Your task to perform on an android device: turn off location Image 0: 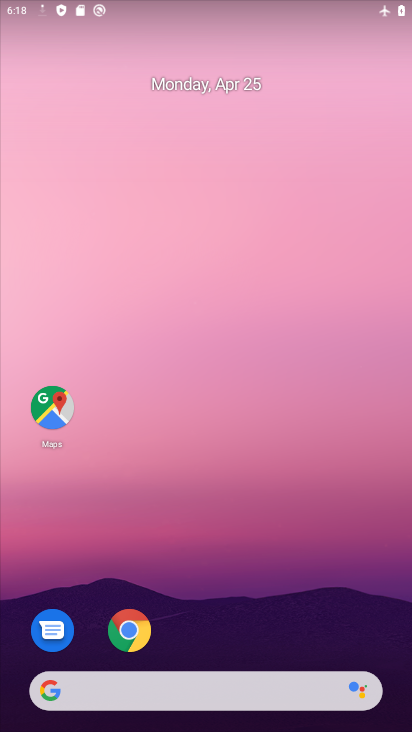
Step 0: drag from (220, 586) to (187, 20)
Your task to perform on an android device: turn off location Image 1: 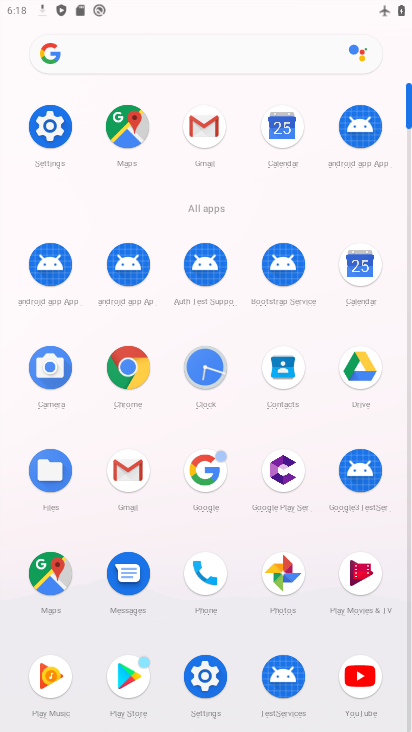
Step 1: click (44, 132)
Your task to perform on an android device: turn off location Image 2: 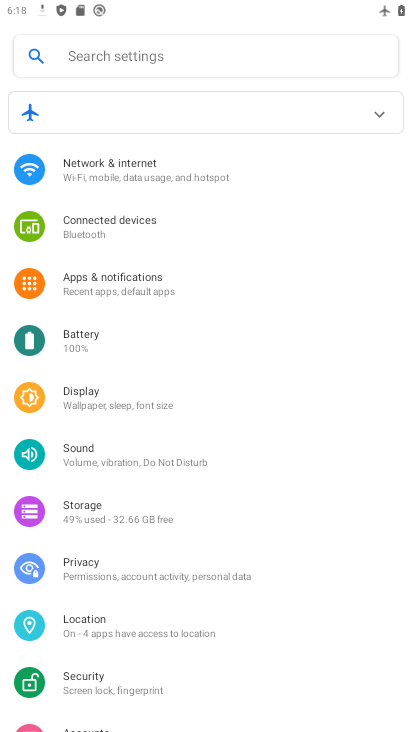
Step 2: click (103, 611)
Your task to perform on an android device: turn off location Image 3: 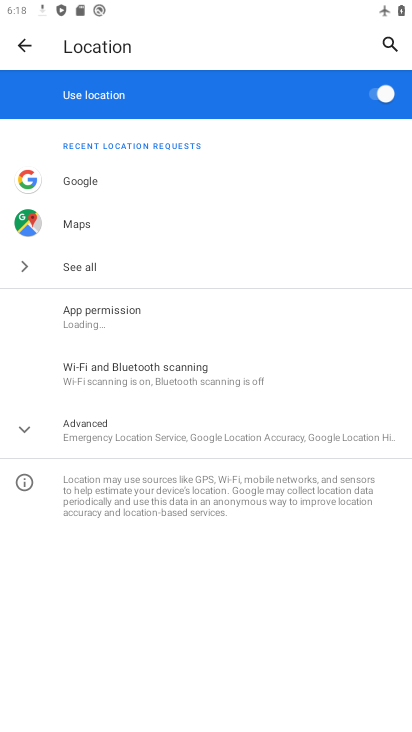
Step 3: click (379, 97)
Your task to perform on an android device: turn off location Image 4: 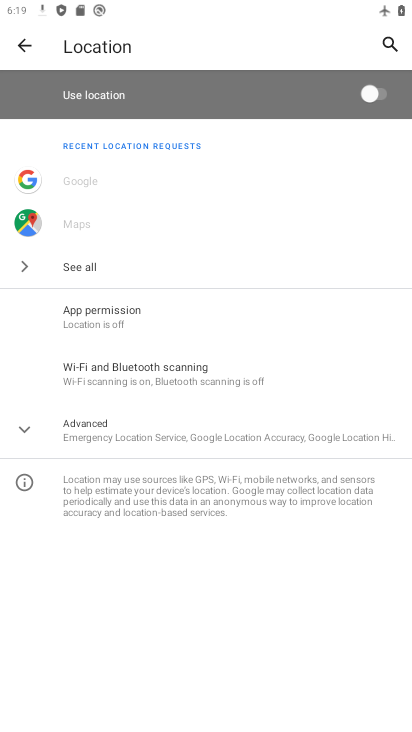
Step 4: task complete